Your task to perform on an android device: Open Chrome and go to settings Image 0: 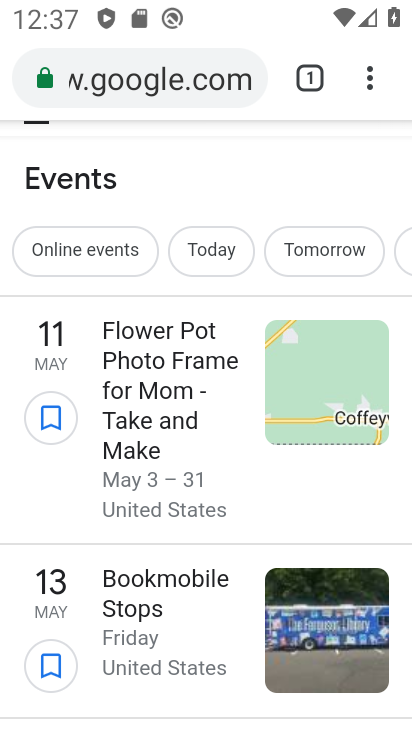
Step 0: press back button
Your task to perform on an android device: Open Chrome and go to settings Image 1: 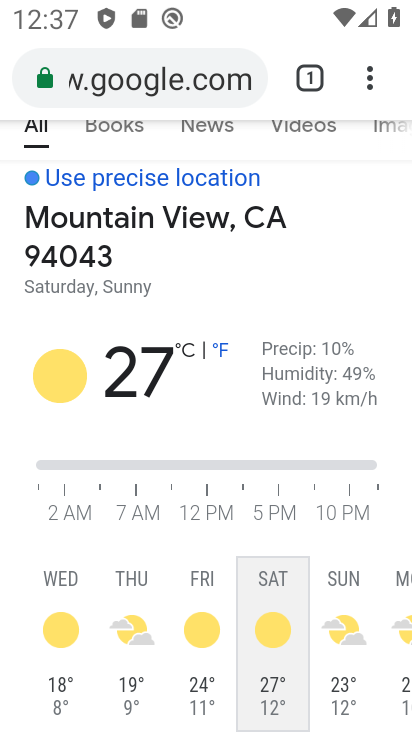
Step 1: task complete